Your task to perform on an android device: open sync settings in chrome Image 0: 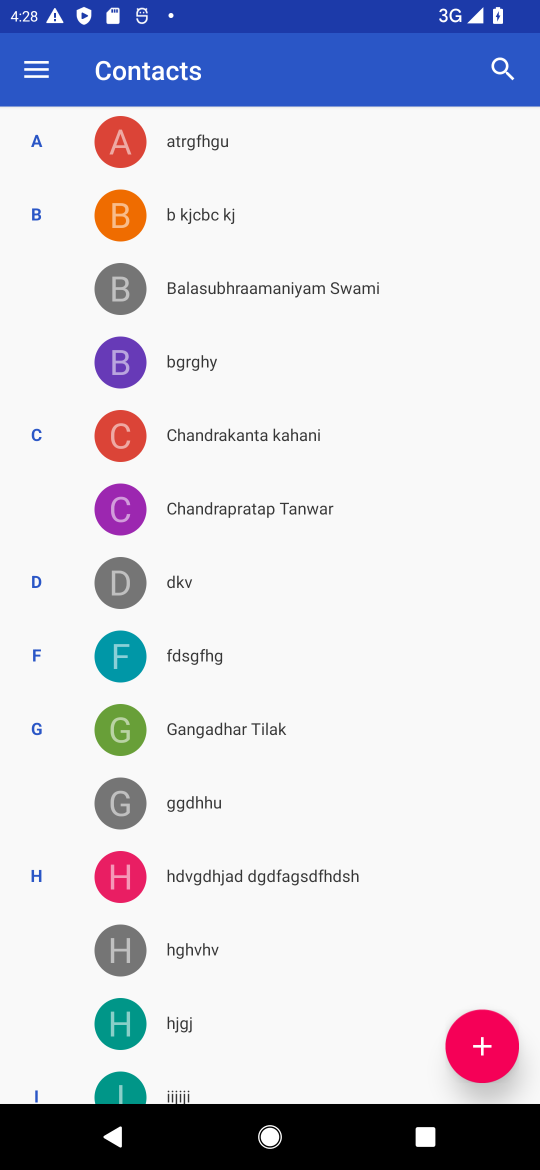
Step 0: press home button
Your task to perform on an android device: open sync settings in chrome Image 1: 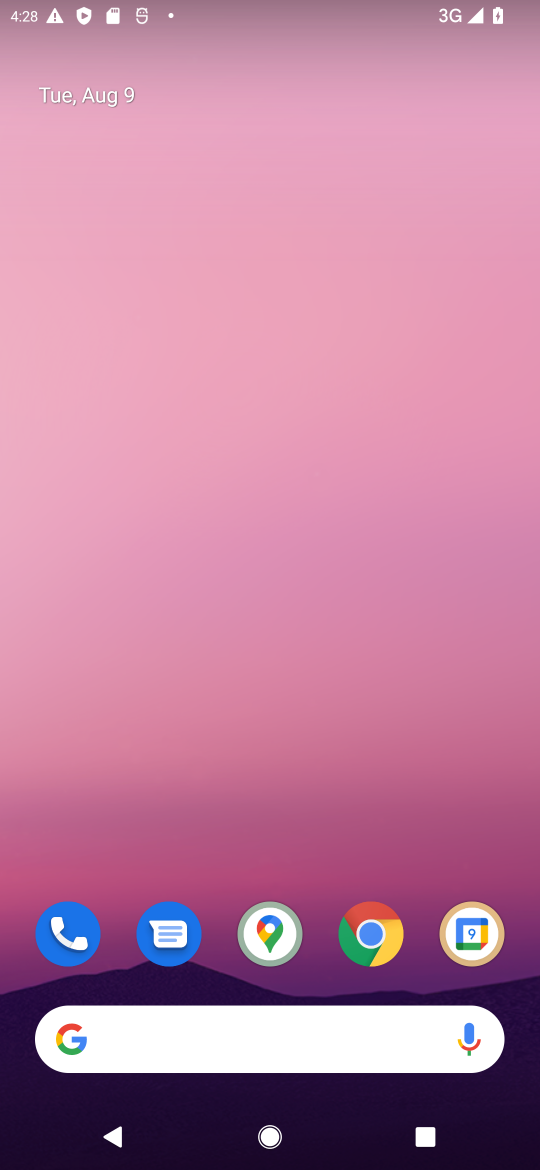
Step 1: click (323, 960)
Your task to perform on an android device: open sync settings in chrome Image 2: 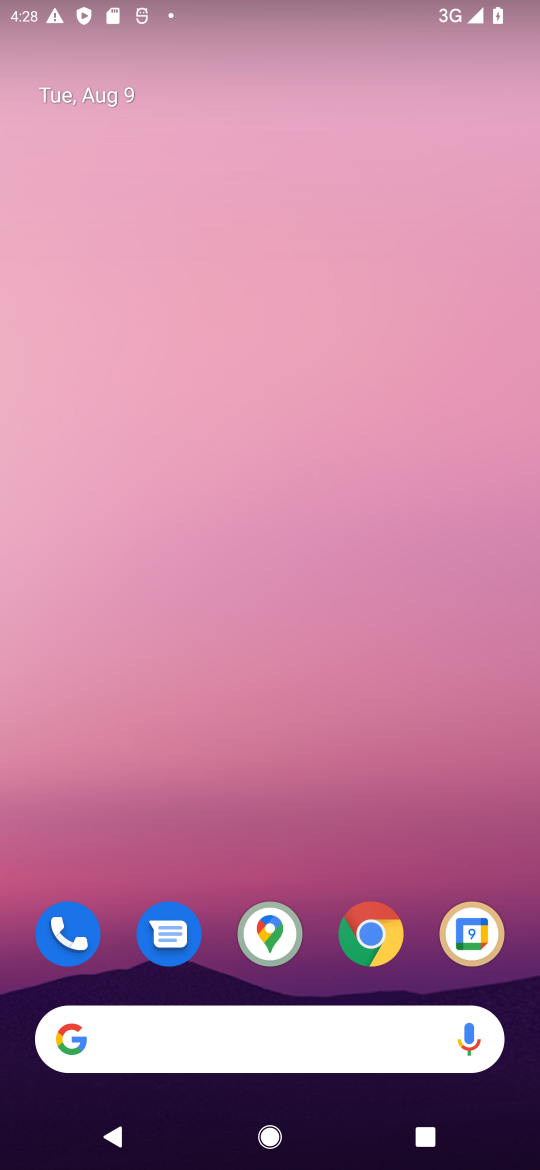
Step 2: click (366, 946)
Your task to perform on an android device: open sync settings in chrome Image 3: 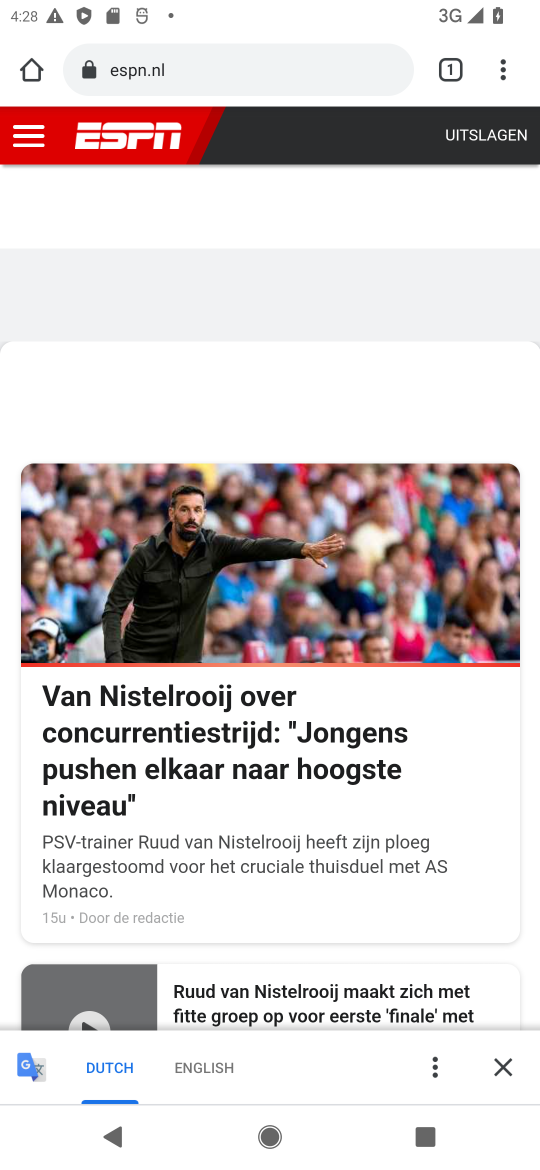
Step 3: click (511, 60)
Your task to perform on an android device: open sync settings in chrome Image 4: 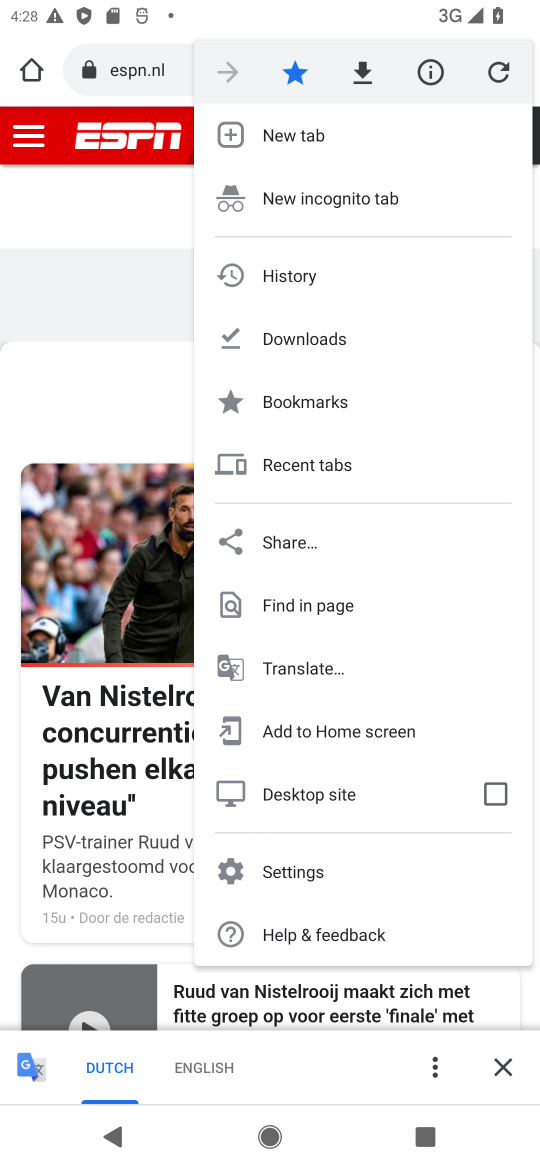
Step 4: click (341, 864)
Your task to perform on an android device: open sync settings in chrome Image 5: 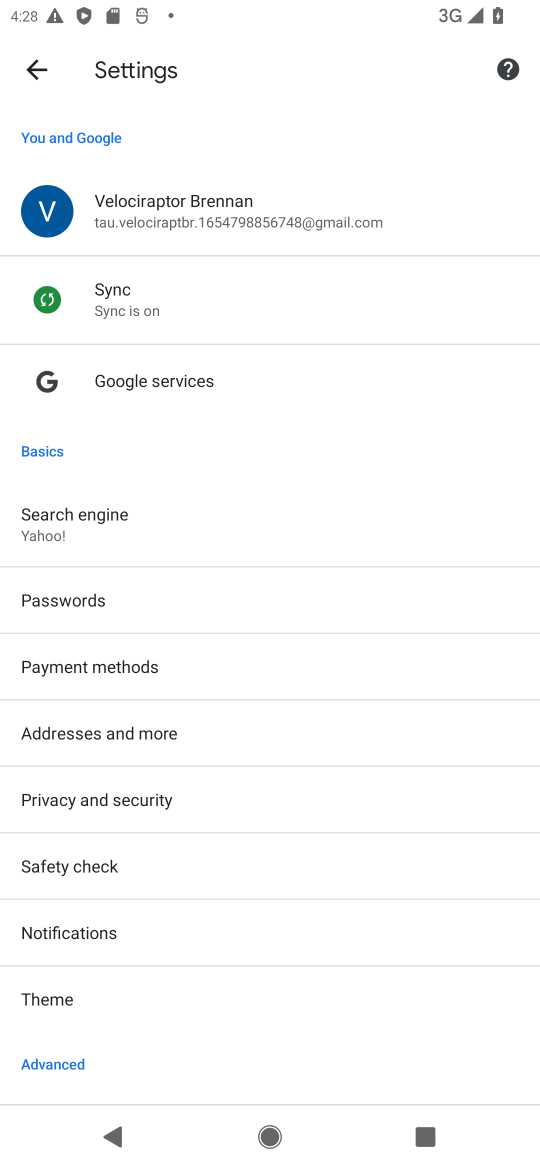
Step 5: click (244, 312)
Your task to perform on an android device: open sync settings in chrome Image 6: 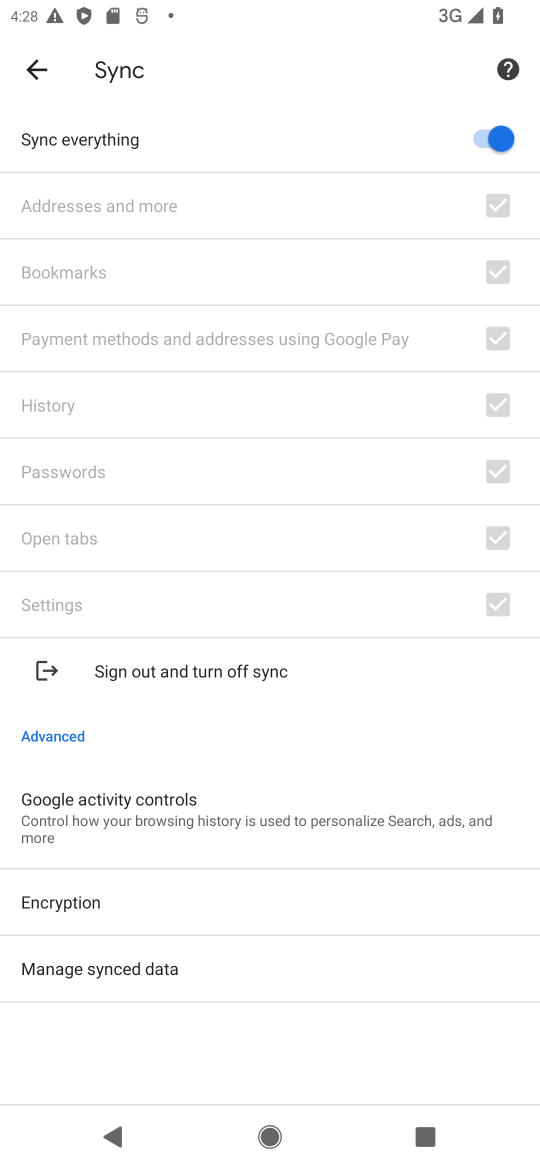
Step 6: task complete